Your task to perform on an android device: Go to ESPN.com Image 0: 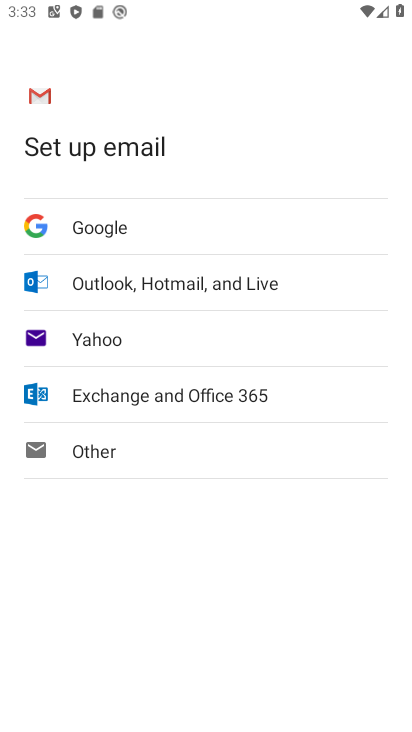
Step 0: drag from (368, 634) to (353, 559)
Your task to perform on an android device: Go to ESPN.com Image 1: 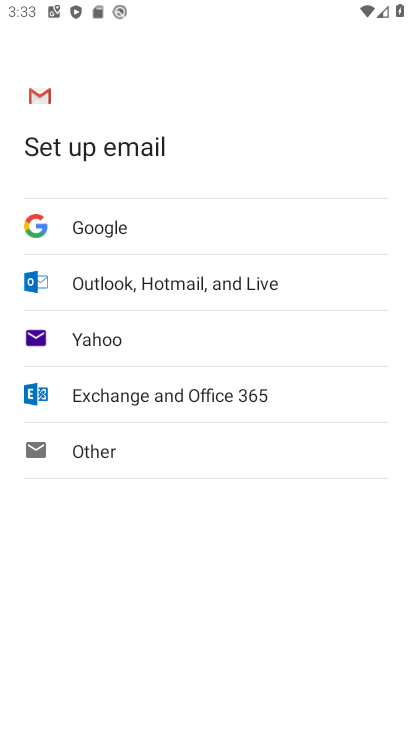
Step 1: drag from (399, 264) to (333, 87)
Your task to perform on an android device: Go to ESPN.com Image 2: 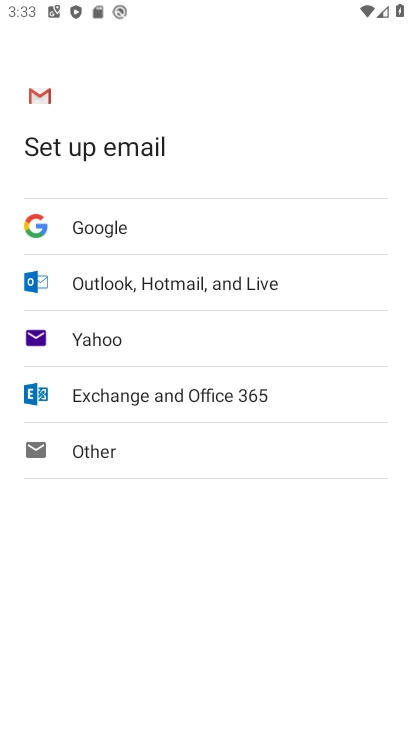
Step 2: press back button
Your task to perform on an android device: Go to ESPN.com Image 3: 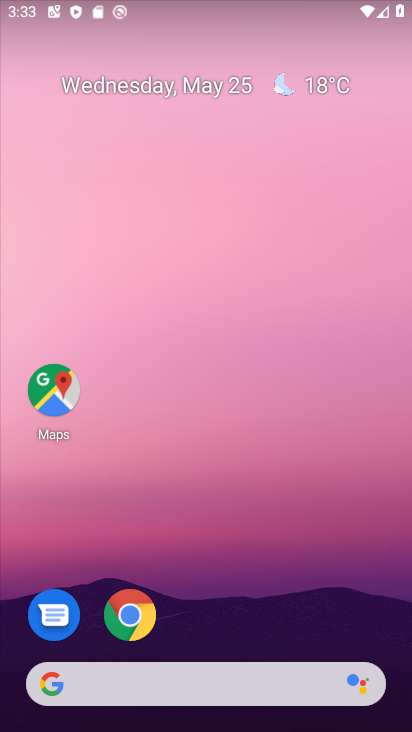
Step 3: click (147, 615)
Your task to perform on an android device: Go to ESPN.com Image 4: 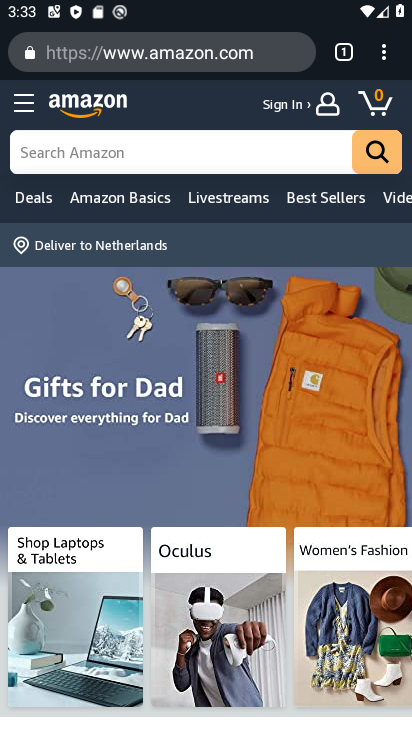
Step 4: click (224, 69)
Your task to perform on an android device: Go to ESPN.com Image 5: 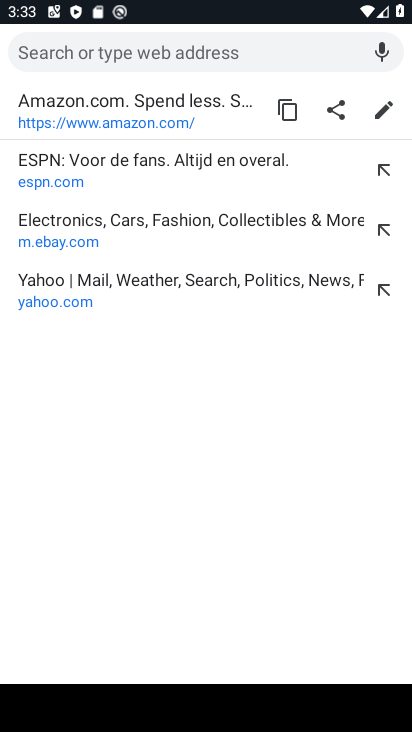
Step 5: click (156, 176)
Your task to perform on an android device: Go to ESPN.com Image 6: 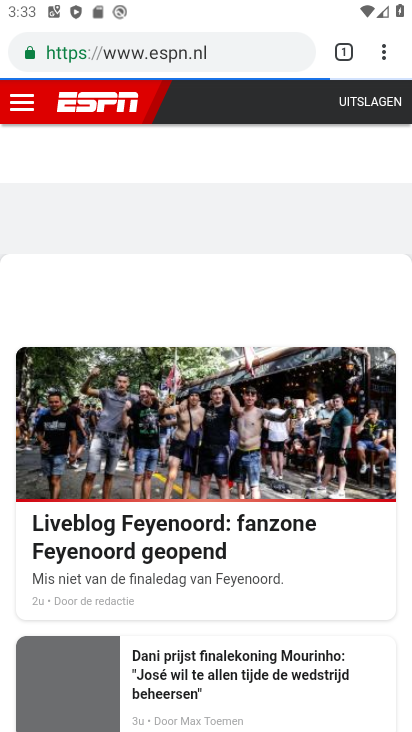
Step 6: task complete